Your task to perform on an android device: Open Google Chrome and click the shortcut for Amazon.com Image 0: 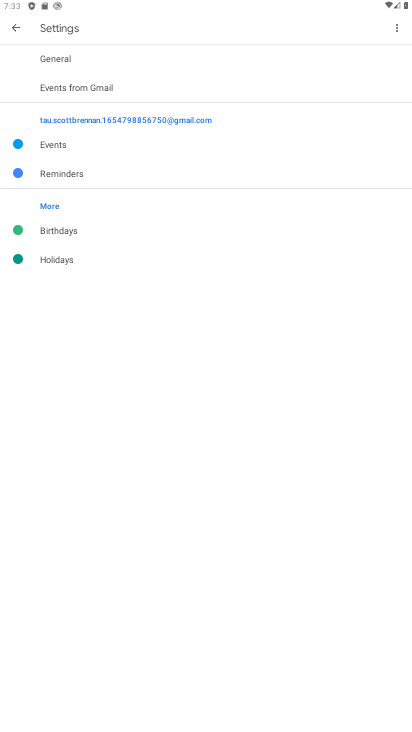
Step 0: press home button
Your task to perform on an android device: Open Google Chrome and click the shortcut for Amazon.com Image 1: 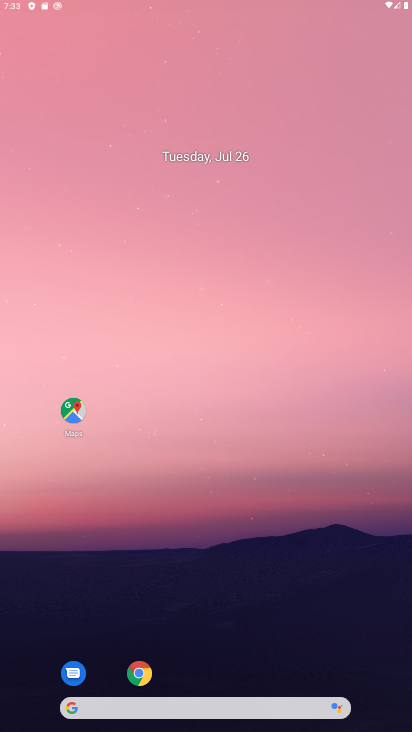
Step 1: drag from (389, 655) to (402, 408)
Your task to perform on an android device: Open Google Chrome and click the shortcut for Amazon.com Image 2: 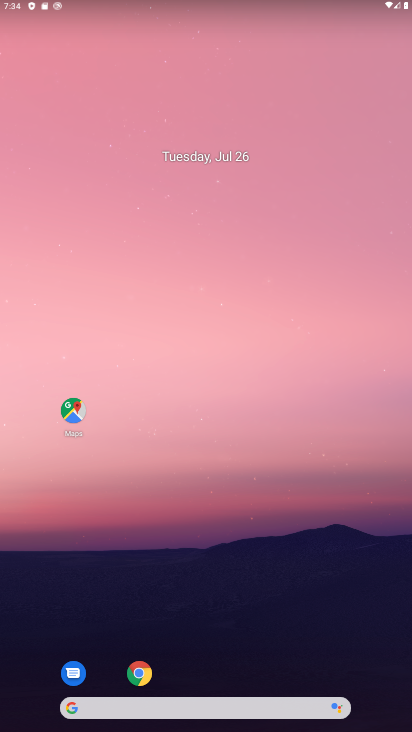
Step 2: drag from (255, 675) to (199, 0)
Your task to perform on an android device: Open Google Chrome and click the shortcut for Amazon.com Image 3: 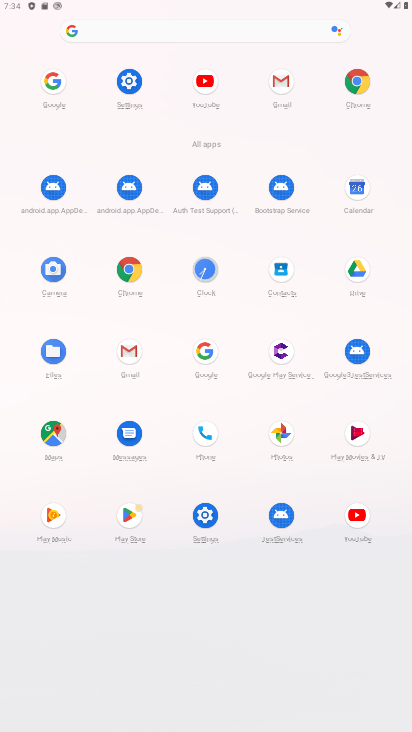
Step 3: click (352, 85)
Your task to perform on an android device: Open Google Chrome and click the shortcut for Amazon.com Image 4: 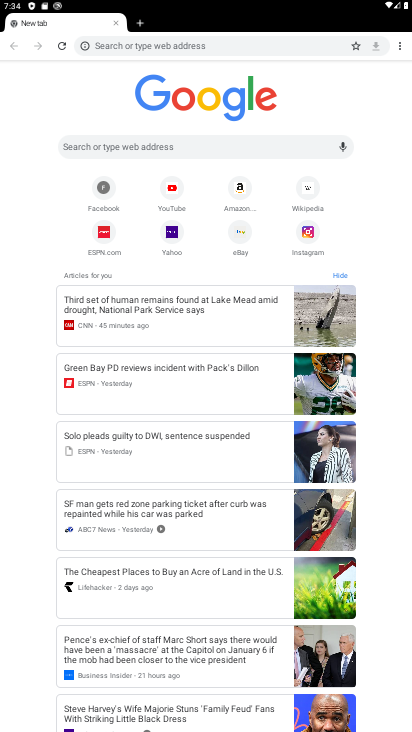
Step 4: click (237, 190)
Your task to perform on an android device: Open Google Chrome and click the shortcut for Amazon.com Image 5: 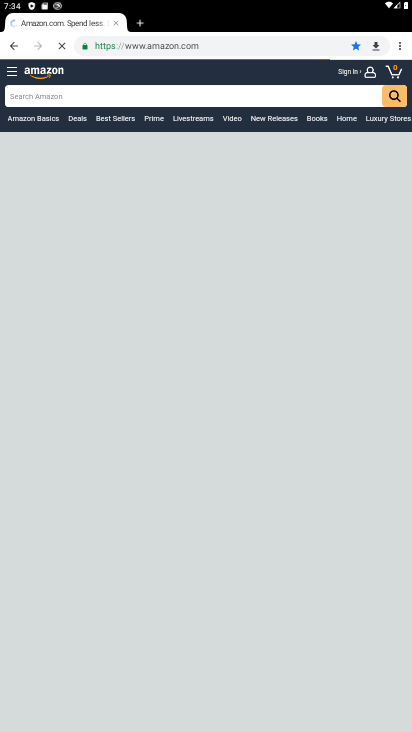
Step 5: task complete